Your task to perform on an android device: Go to accessibility settings Image 0: 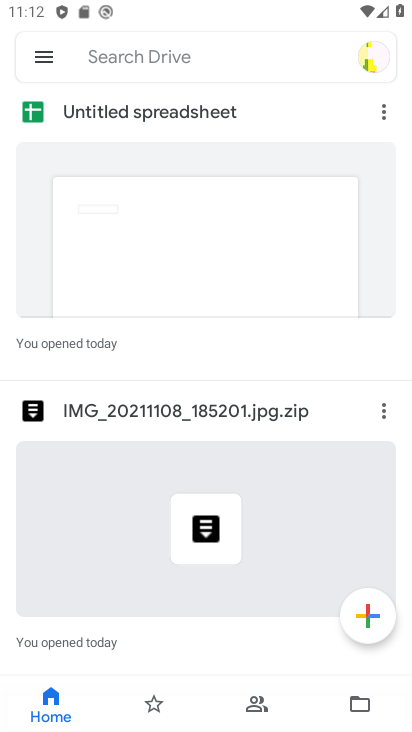
Step 0: press home button
Your task to perform on an android device: Go to accessibility settings Image 1: 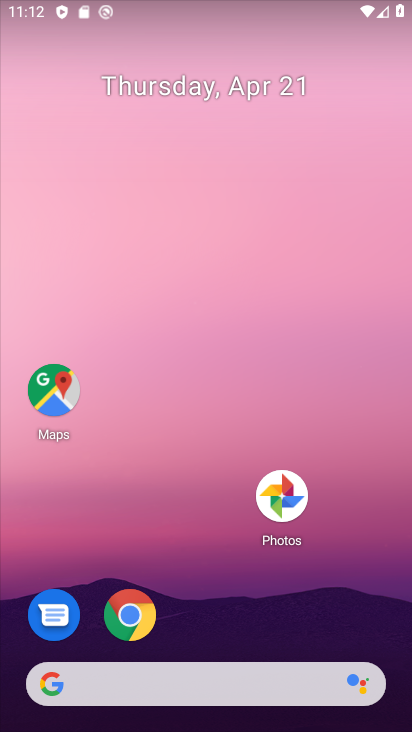
Step 1: drag from (302, 488) to (176, 114)
Your task to perform on an android device: Go to accessibility settings Image 2: 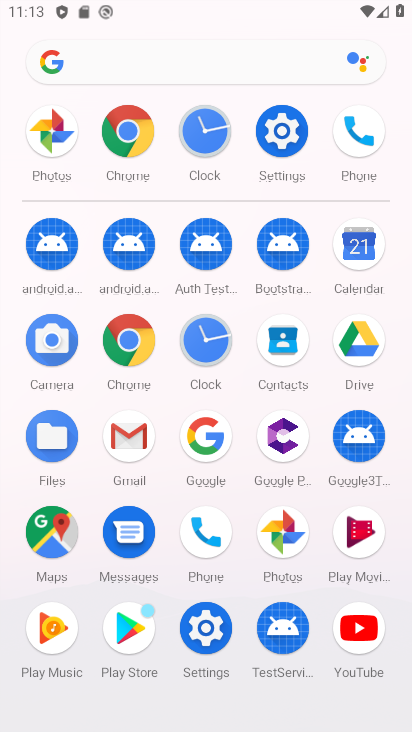
Step 2: click (290, 132)
Your task to perform on an android device: Go to accessibility settings Image 3: 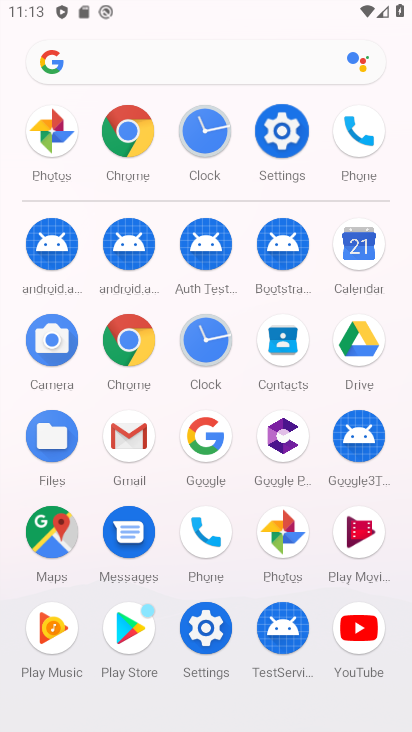
Step 3: click (290, 131)
Your task to perform on an android device: Go to accessibility settings Image 4: 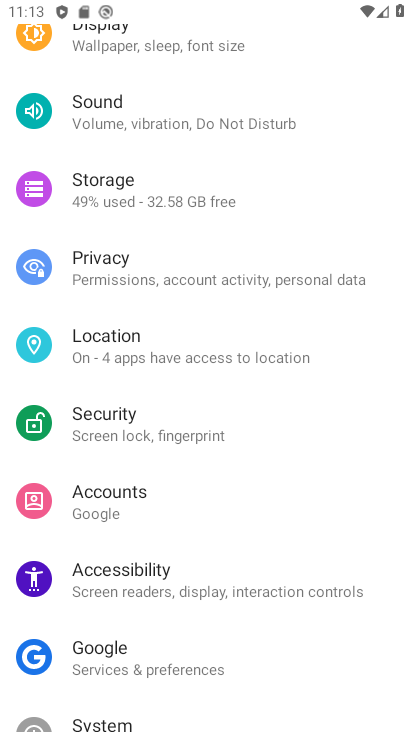
Step 4: drag from (285, 532) to (136, 365)
Your task to perform on an android device: Go to accessibility settings Image 5: 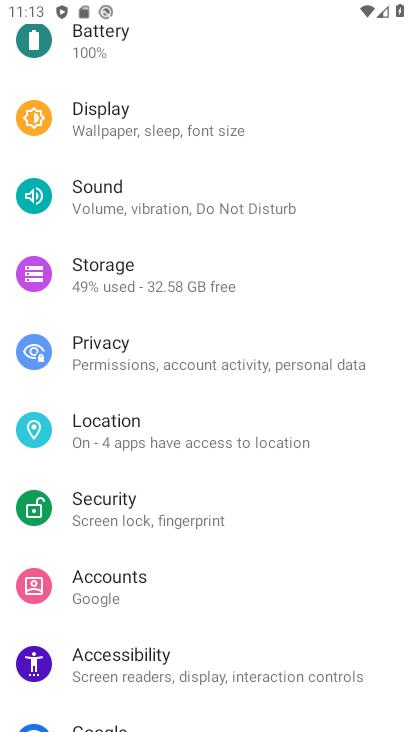
Step 5: drag from (227, 508) to (214, 161)
Your task to perform on an android device: Go to accessibility settings Image 6: 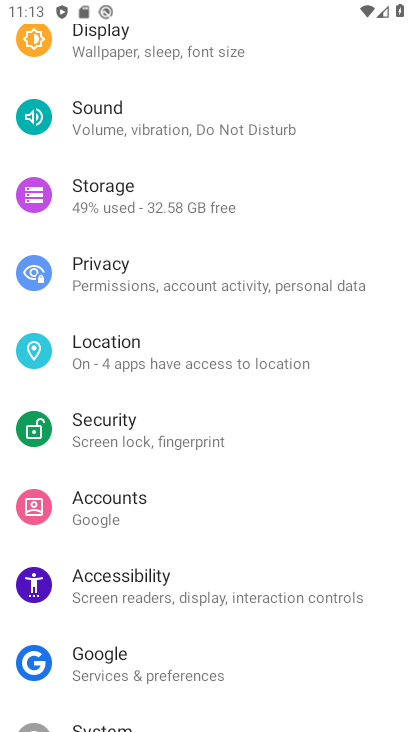
Step 6: drag from (118, 279) to (93, 58)
Your task to perform on an android device: Go to accessibility settings Image 7: 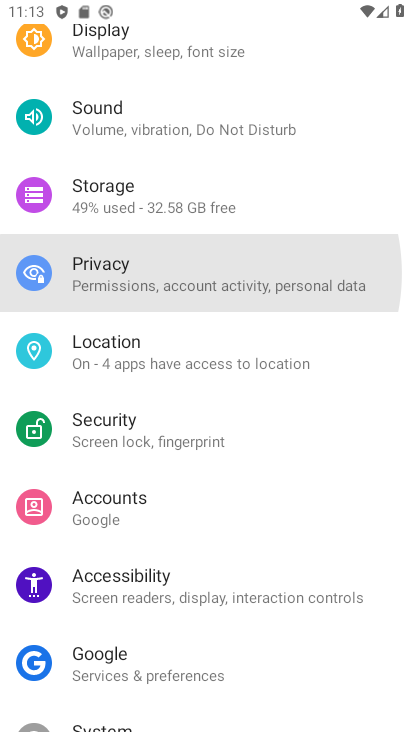
Step 7: drag from (183, 515) to (135, 74)
Your task to perform on an android device: Go to accessibility settings Image 8: 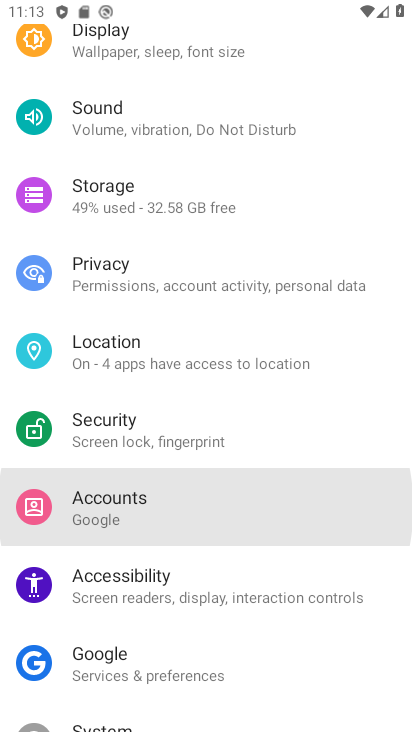
Step 8: drag from (164, 465) to (177, 86)
Your task to perform on an android device: Go to accessibility settings Image 9: 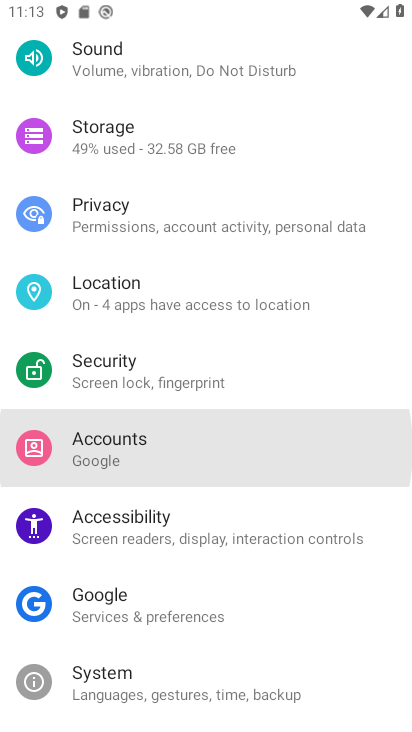
Step 9: drag from (226, 534) to (211, 72)
Your task to perform on an android device: Go to accessibility settings Image 10: 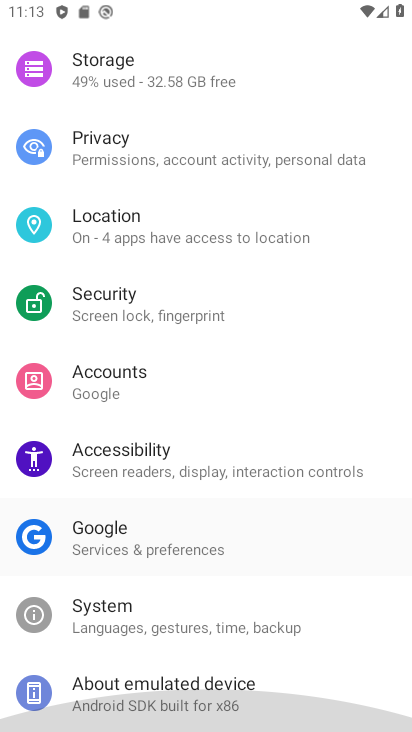
Step 10: drag from (198, 339) to (198, 55)
Your task to perform on an android device: Go to accessibility settings Image 11: 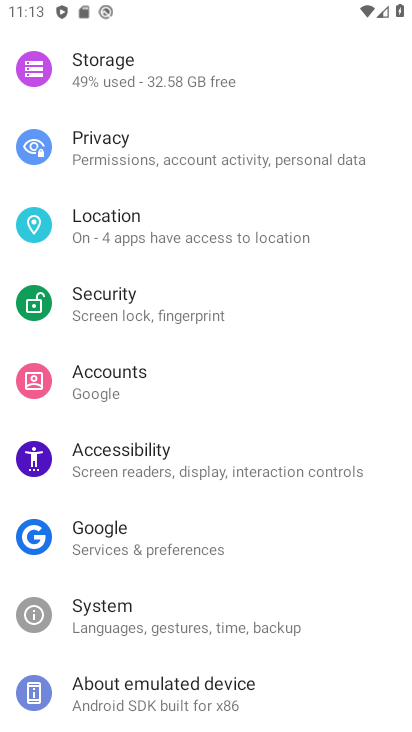
Step 11: click (171, 262)
Your task to perform on an android device: Go to accessibility settings Image 12: 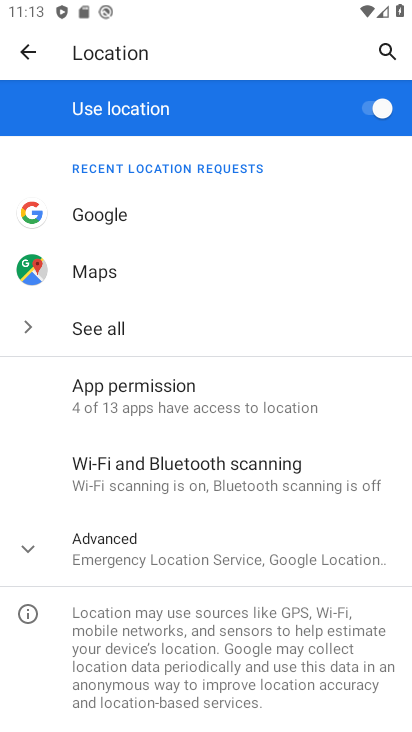
Step 12: click (24, 44)
Your task to perform on an android device: Go to accessibility settings Image 13: 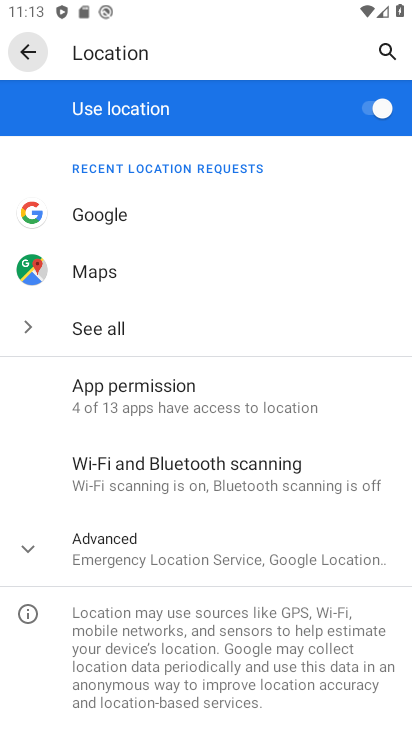
Step 13: click (25, 45)
Your task to perform on an android device: Go to accessibility settings Image 14: 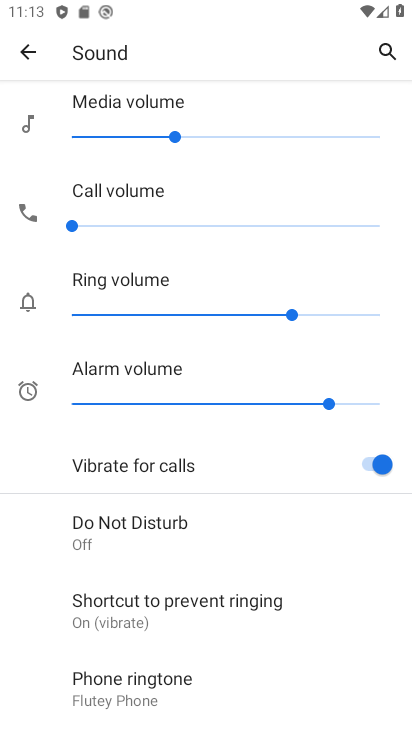
Step 14: click (24, 51)
Your task to perform on an android device: Go to accessibility settings Image 15: 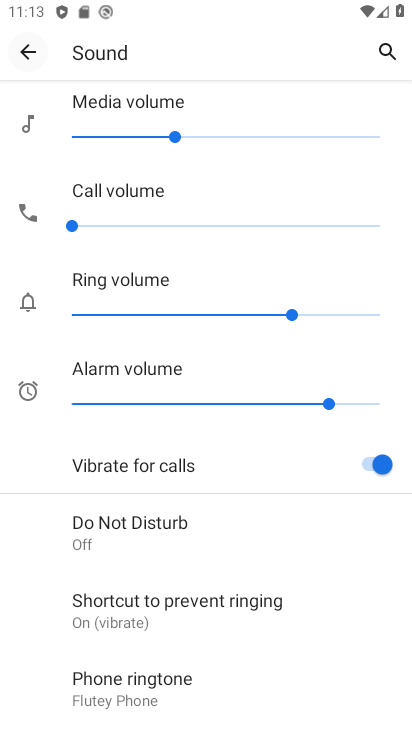
Step 15: click (24, 50)
Your task to perform on an android device: Go to accessibility settings Image 16: 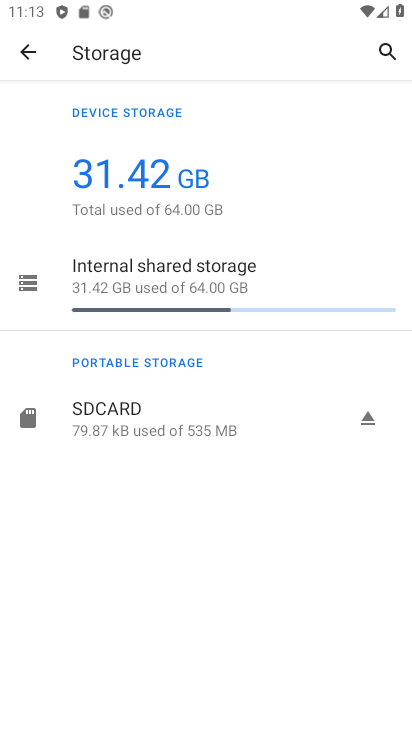
Step 16: click (25, 39)
Your task to perform on an android device: Go to accessibility settings Image 17: 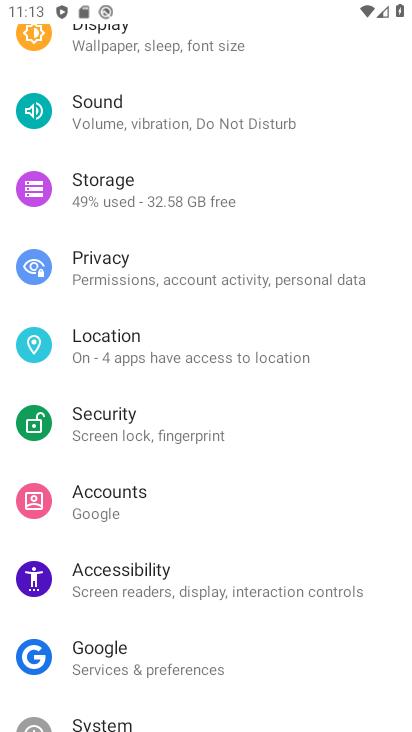
Step 17: click (124, 586)
Your task to perform on an android device: Go to accessibility settings Image 18: 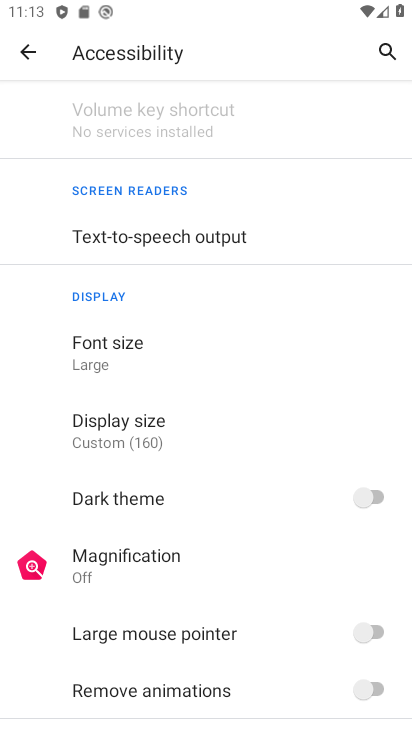
Step 18: task complete